Your task to perform on an android device: Do I have any events today? Image 0: 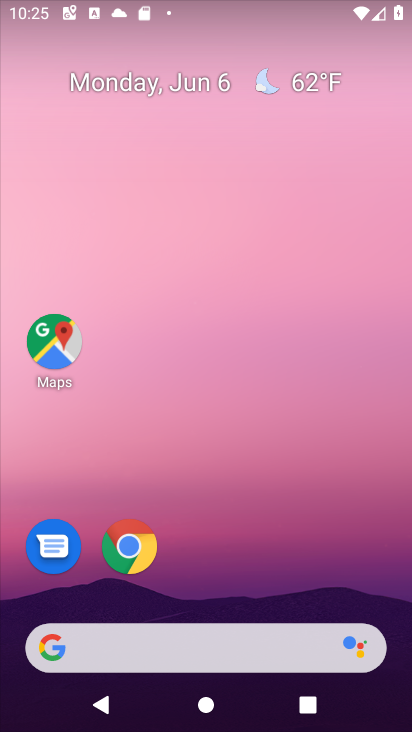
Step 0: drag from (392, 647) to (331, 173)
Your task to perform on an android device: Do I have any events today? Image 1: 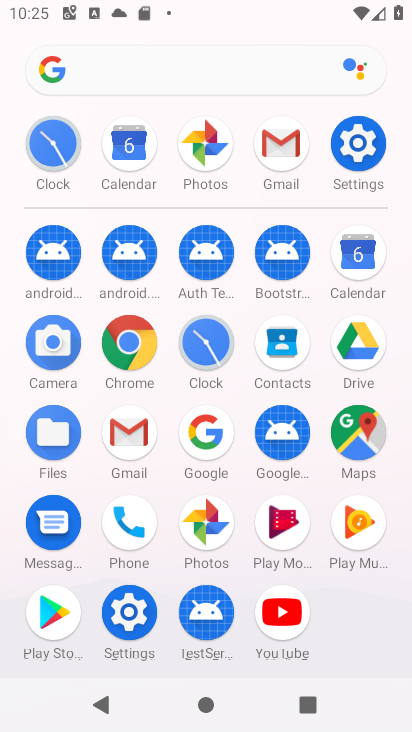
Step 1: click (357, 258)
Your task to perform on an android device: Do I have any events today? Image 2: 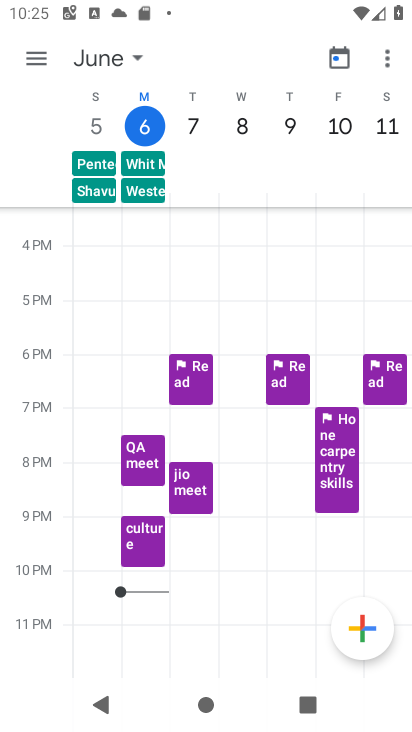
Step 2: click (37, 58)
Your task to perform on an android device: Do I have any events today? Image 3: 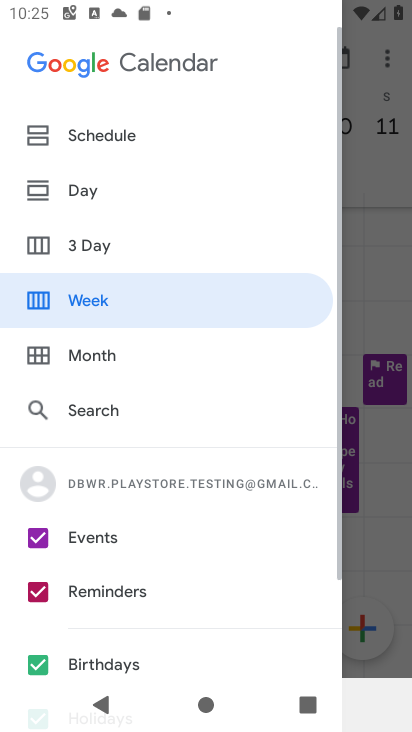
Step 3: click (88, 184)
Your task to perform on an android device: Do I have any events today? Image 4: 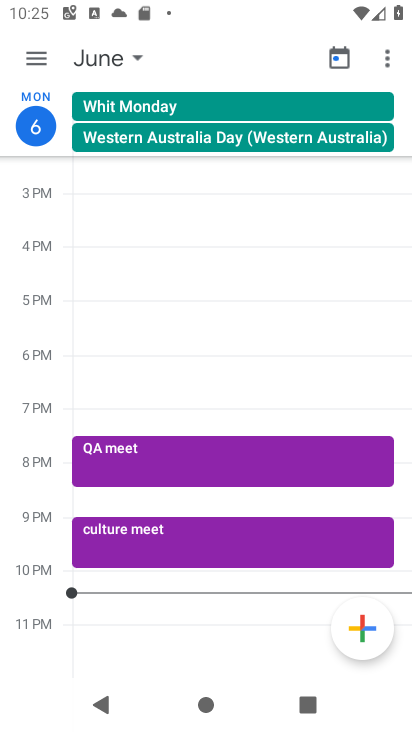
Step 4: task complete